Your task to perform on an android device: toggle pop-ups in chrome Image 0: 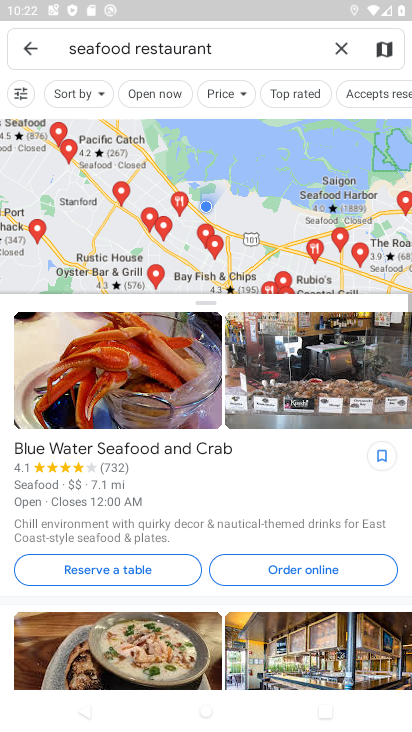
Step 0: press home button
Your task to perform on an android device: toggle pop-ups in chrome Image 1: 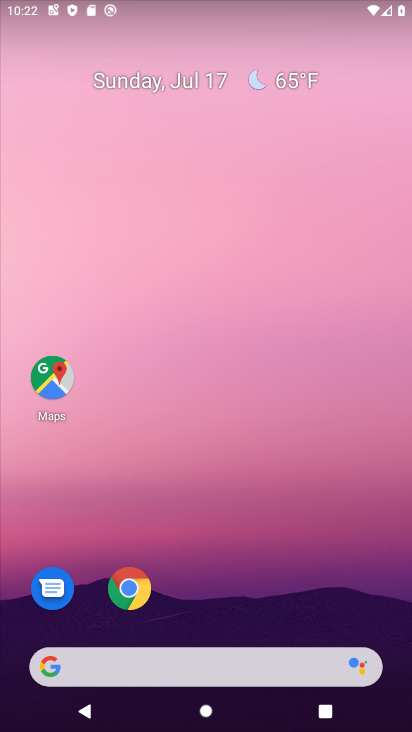
Step 1: click (134, 582)
Your task to perform on an android device: toggle pop-ups in chrome Image 2: 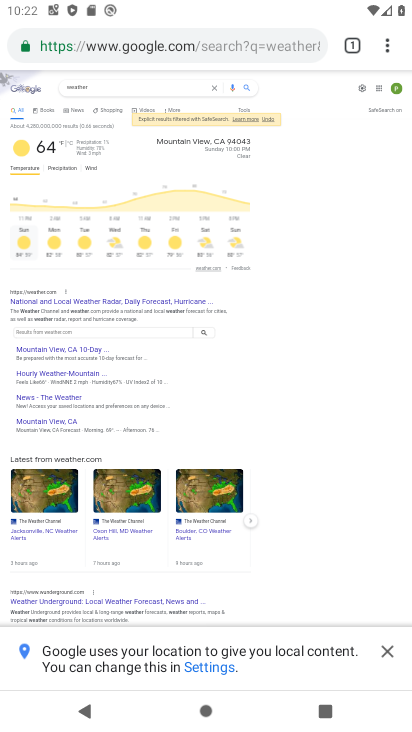
Step 2: click (392, 48)
Your task to perform on an android device: toggle pop-ups in chrome Image 3: 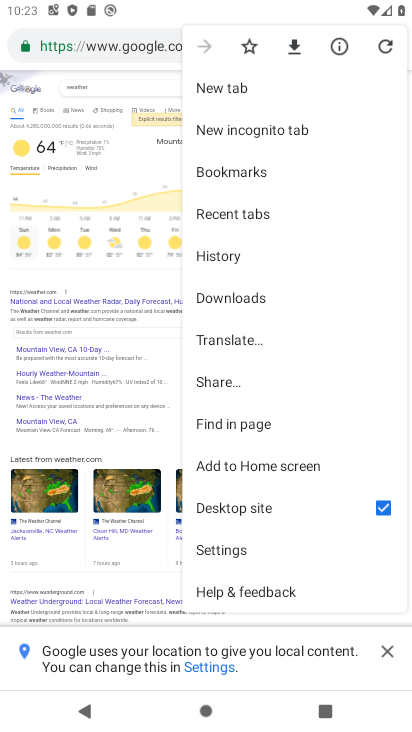
Step 3: click (220, 540)
Your task to perform on an android device: toggle pop-ups in chrome Image 4: 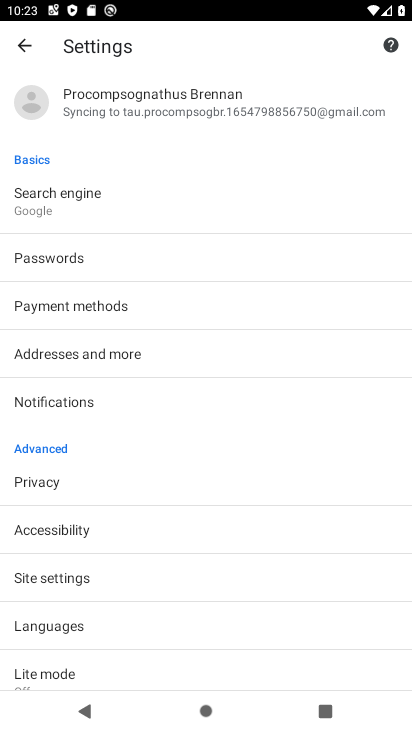
Step 4: click (64, 574)
Your task to perform on an android device: toggle pop-ups in chrome Image 5: 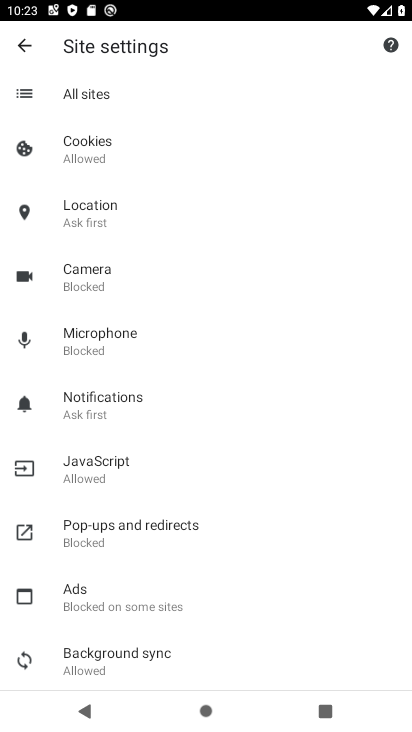
Step 5: click (106, 520)
Your task to perform on an android device: toggle pop-ups in chrome Image 6: 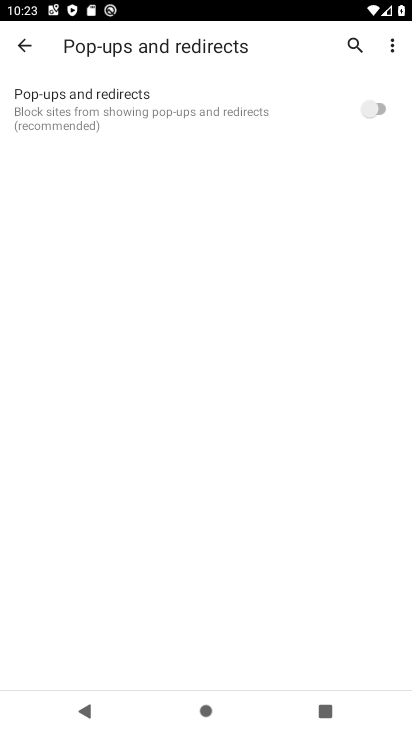
Step 6: click (375, 106)
Your task to perform on an android device: toggle pop-ups in chrome Image 7: 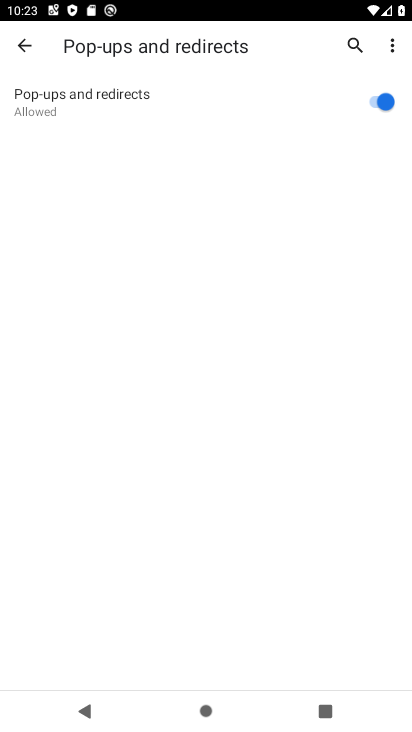
Step 7: task complete